Your task to perform on an android device: Clear the shopping cart on amazon. Add "macbook pro 13 inch" to the cart on amazon Image 0: 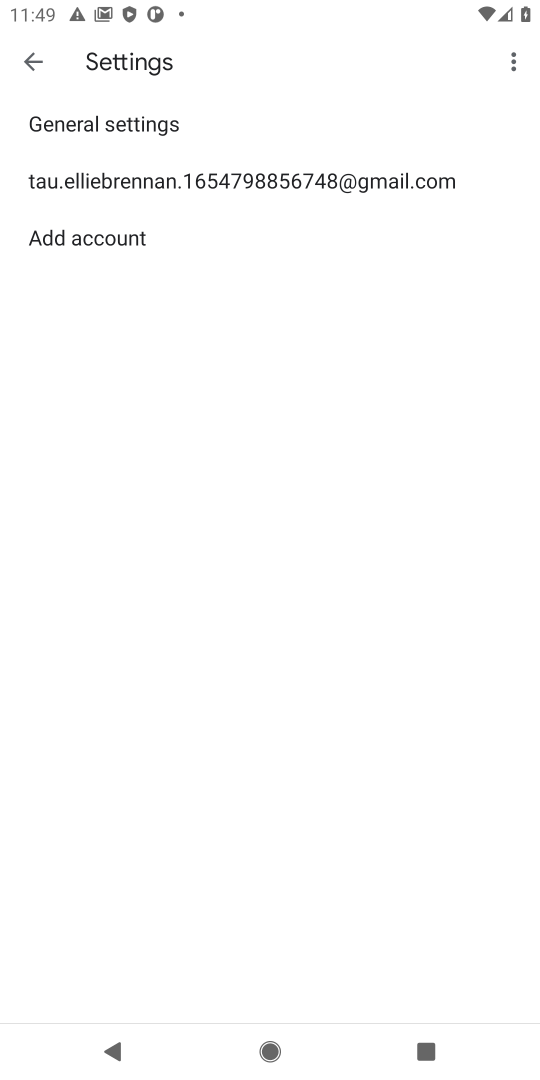
Step 0: press home button
Your task to perform on an android device: Clear the shopping cart on amazon. Add "macbook pro 13 inch" to the cart on amazon Image 1: 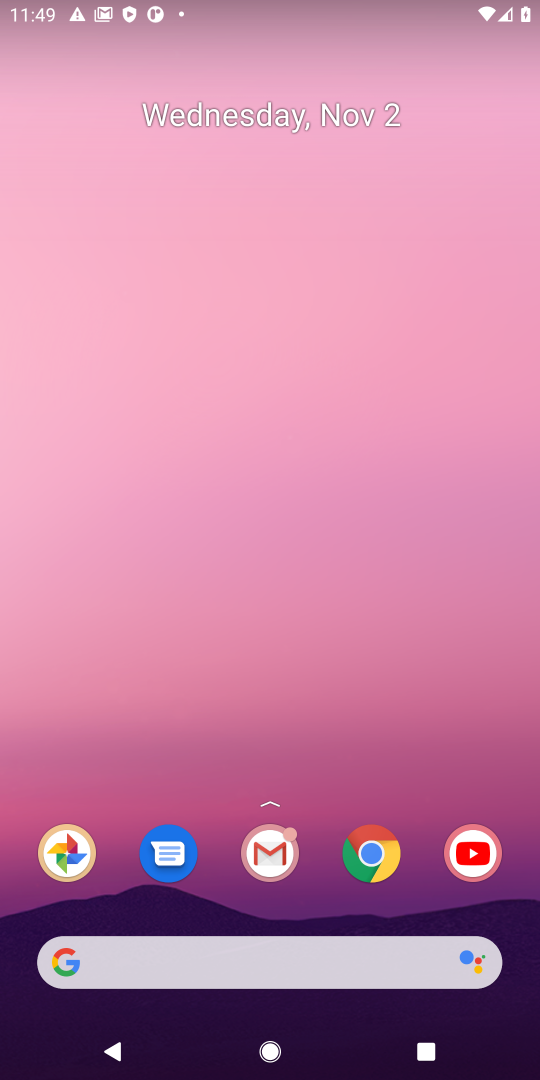
Step 1: click (373, 856)
Your task to perform on an android device: Clear the shopping cart on amazon. Add "macbook pro 13 inch" to the cart on amazon Image 2: 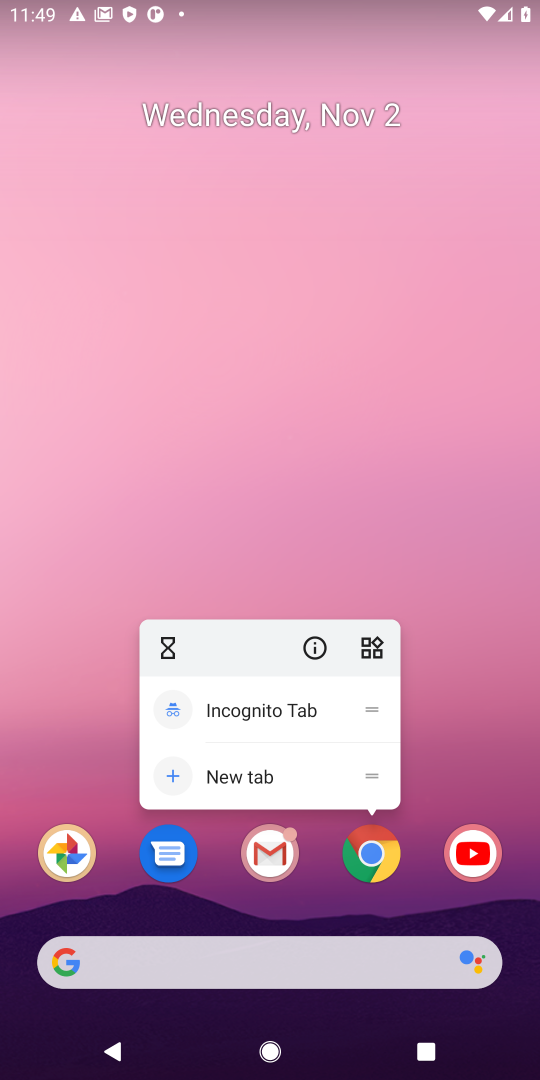
Step 2: click (369, 862)
Your task to perform on an android device: Clear the shopping cart on amazon. Add "macbook pro 13 inch" to the cart on amazon Image 3: 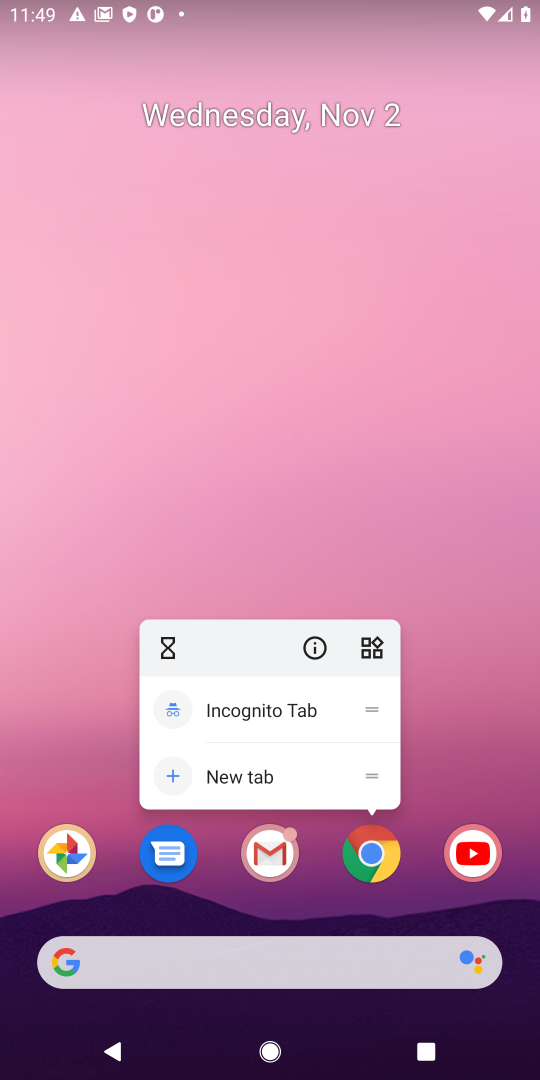
Step 3: click (372, 860)
Your task to perform on an android device: Clear the shopping cart on amazon. Add "macbook pro 13 inch" to the cart on amazon Image 4: 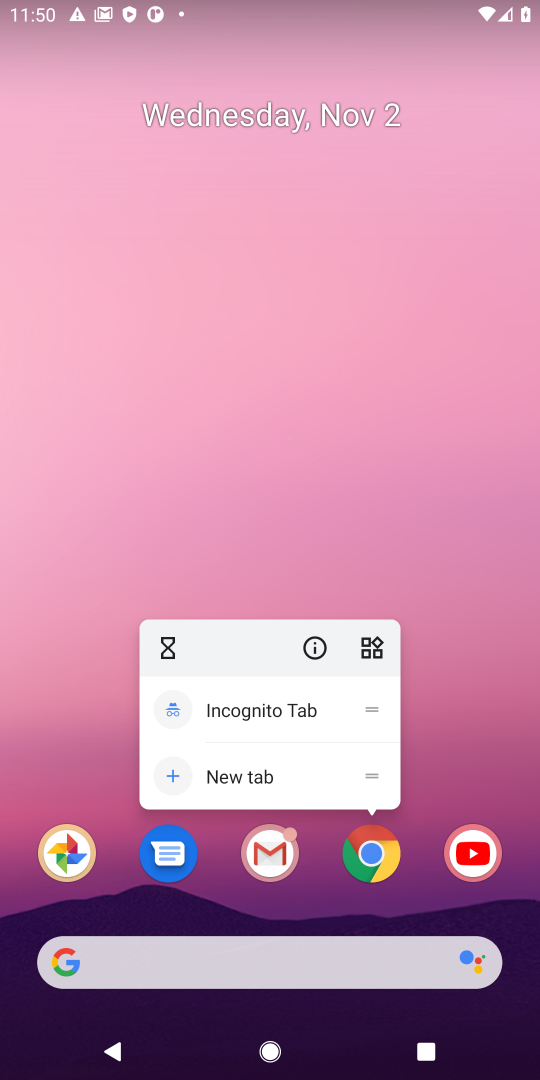
Step 4: click (367, 857)
Your task to perform on an android device: Clear the shopping cart on amazon. Add "macbook pro 13 inch" to the cart on amazon Image 5: 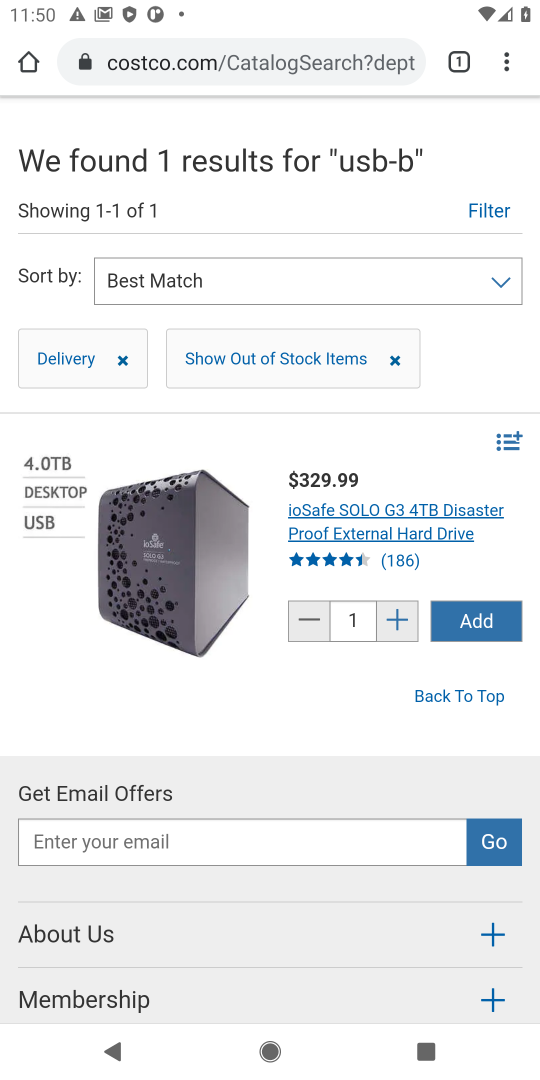
Step 5: click (297, 61)
Your task to perform on an android device: Clear the shopping cart on amazon. Add "macbook pro 13 inch" to the cart on amazon Image 6: 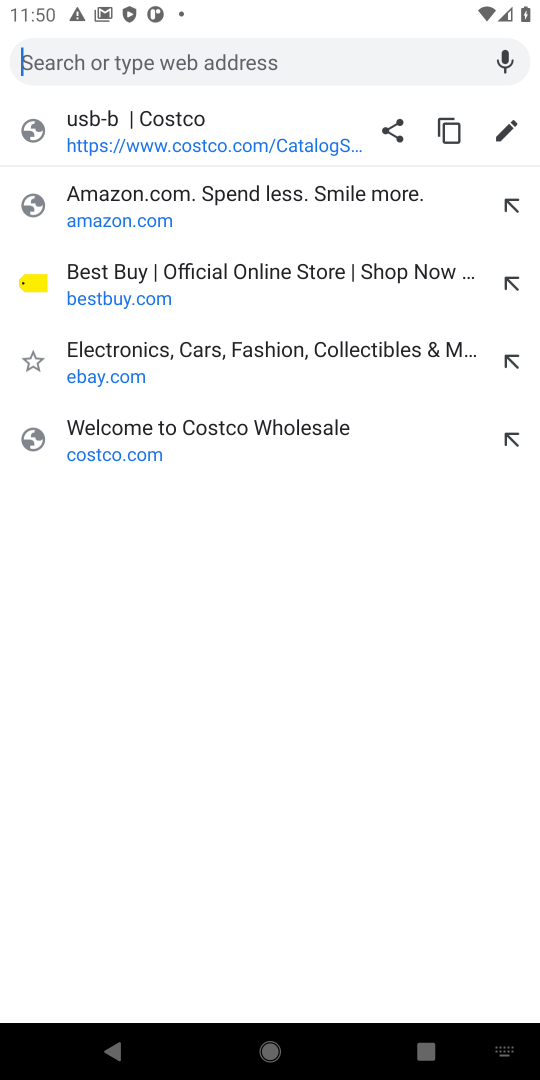
Step 6: click (85, 219)
Your task to perform on an android device: Clear the shopping cart on amazon. Add "macbook pro 13 inch" to the cart on amazon Image 7: 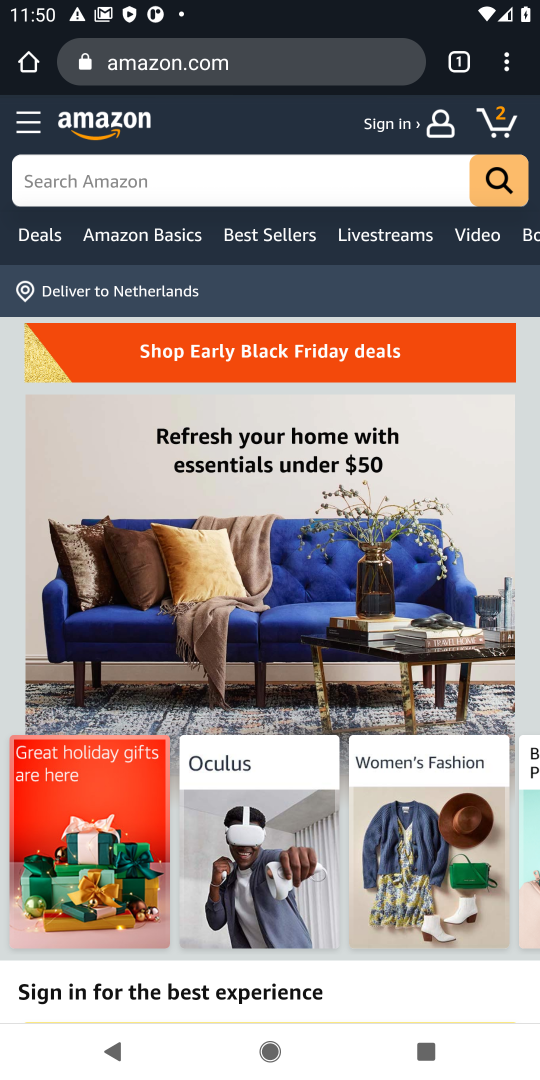
Step 7: click (316, 175)
Your task to perform on an android device: Clear the shopping cart on amazon. Add "macbook pro 13 inch" to the cart on amazon Image 8: 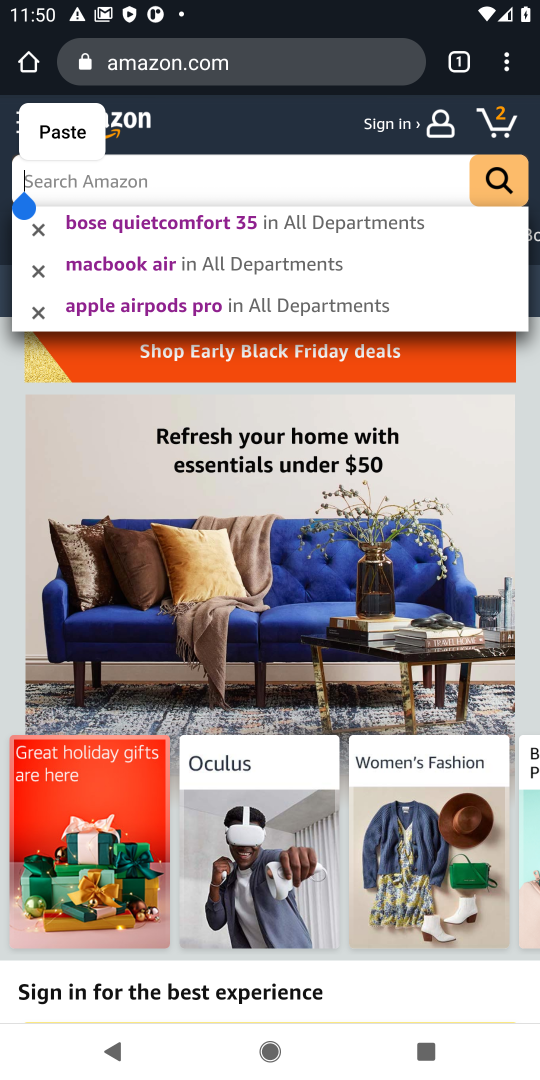
Step 8: type "macbook pro 13 inch"
Your task to perform on an android device: Clear the shopping cart on amazon. Add "macbook pro 13 inch" to the cart on amazon Image 9: 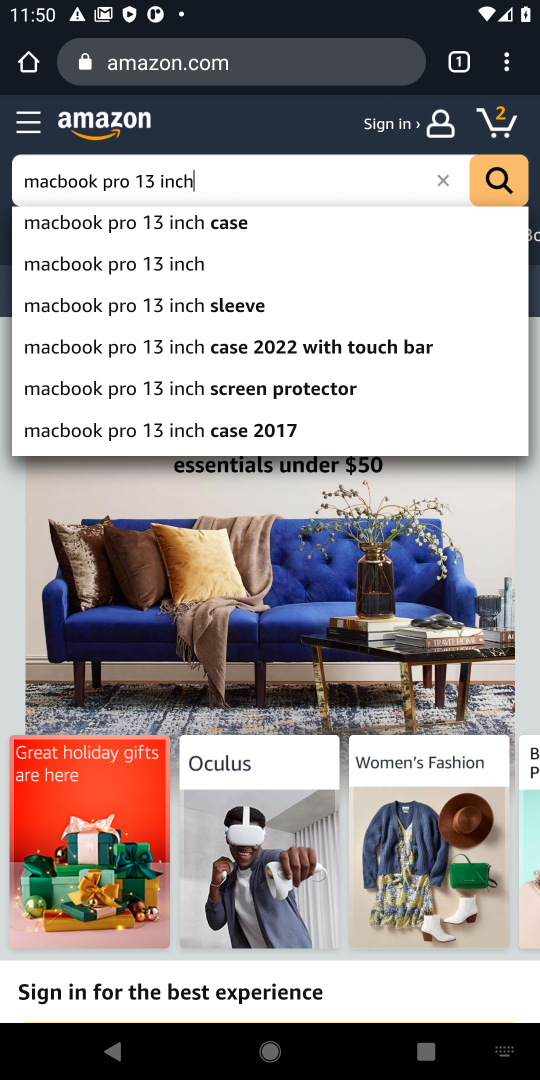
Step 9: press enter
Your task to perform on an android device: Clear the shopping cart on amazon. Add "macbook pro 13 inch" to the cart on amazon Image 10: 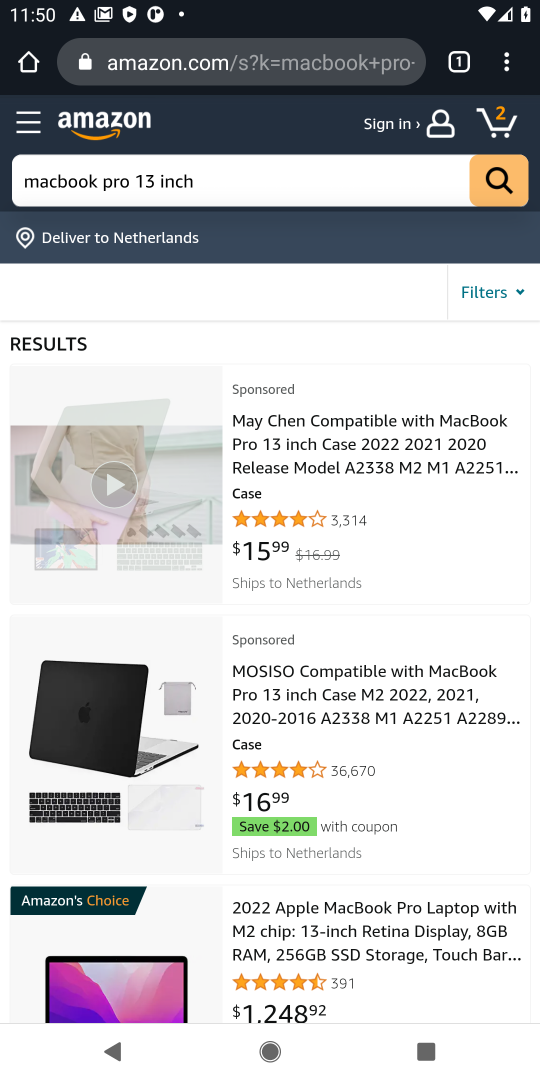
Step 10: click (346, 453)
Your task to perform on an android device: Clear the shopping cart on amazon. Add "macbook pro 13 inch" to the cart on amazon Image 11: 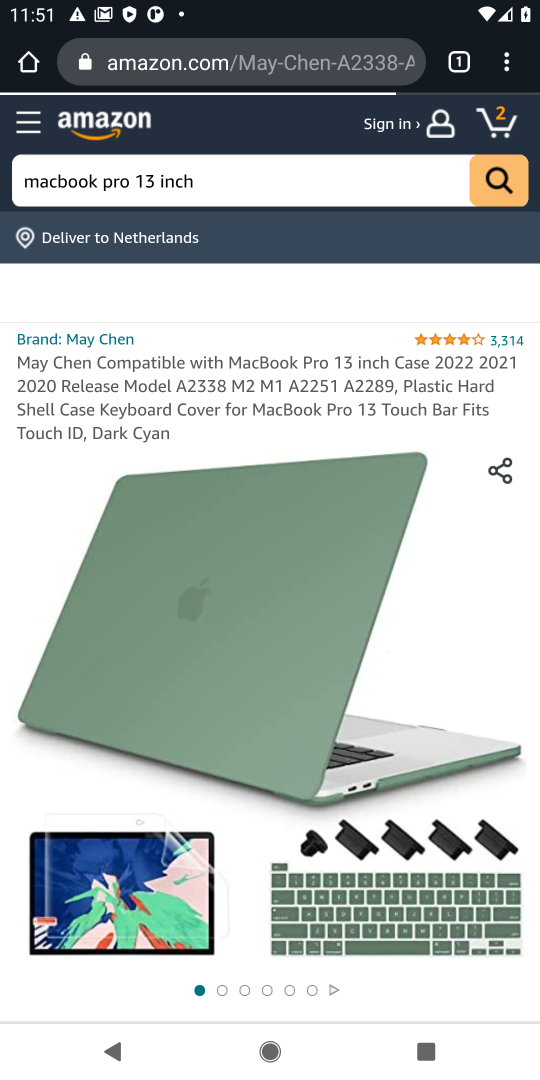
Step 11: drag from (226, 801) to (500, 199)
Your task to perform on an android device: Clear the shopping cart on amazon. Add "macbook pro 13 inch" to the cart on amazon Image 12: 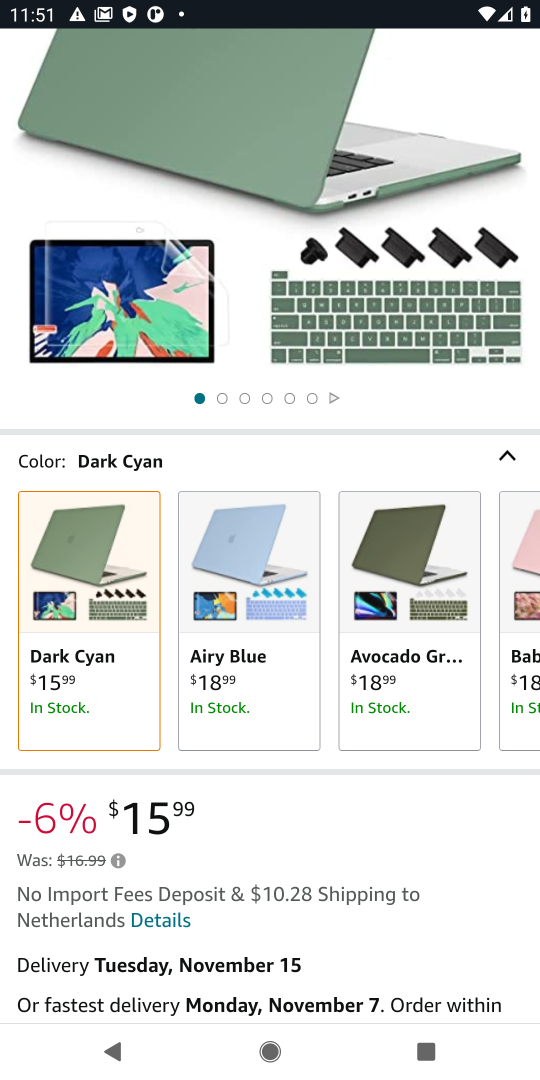
Step 12: drag from (252, 938) to (539, 278)
Your task to perform on an android device: Clear the shopping cart on amazon. Add "macbook pro 13 inch" to the cart on amazon Image 13: 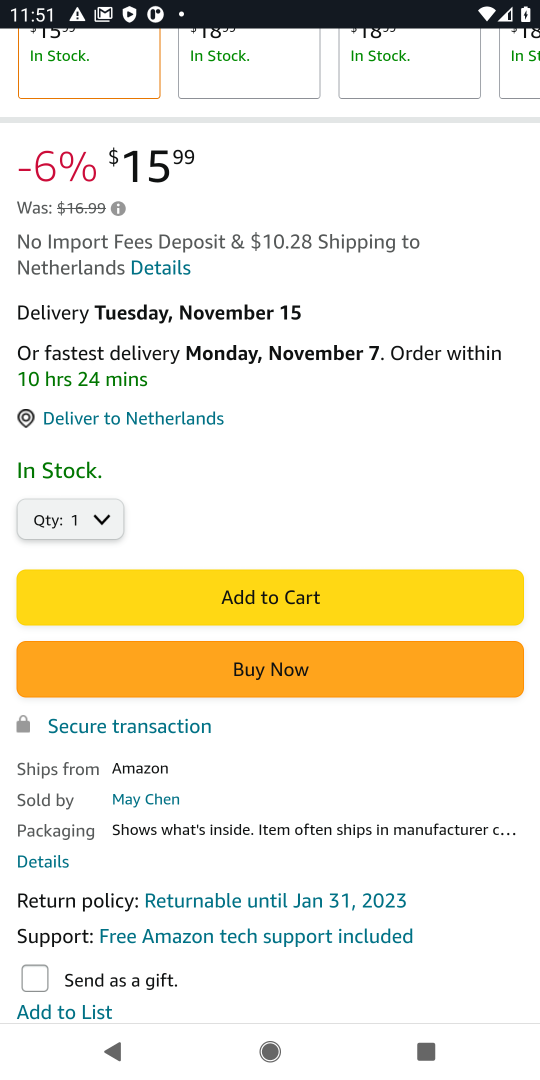
Step 13: click (281, 591)
Your task to perform on an android device: Clear the shopping cart on amazon. Add "macbook pro 13 inch" to the cart on amazon Image 14: 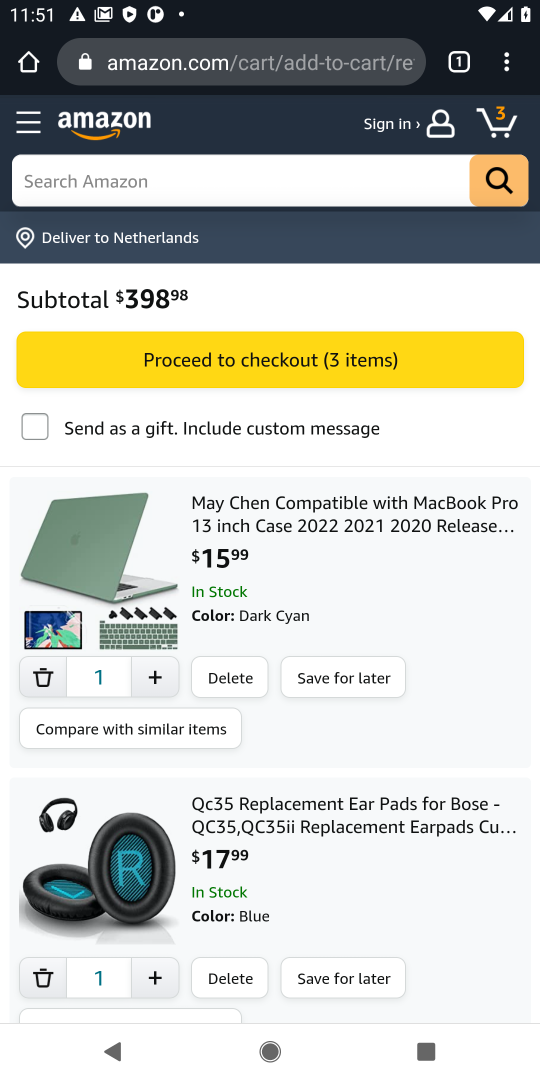
Step 14: drag from (274, 759) to (375, 466)
Your task to perform on an android device: Clear the shopping cart on amazon. Add "macbook pro 13 inch" to the cart on amazon Image 15: 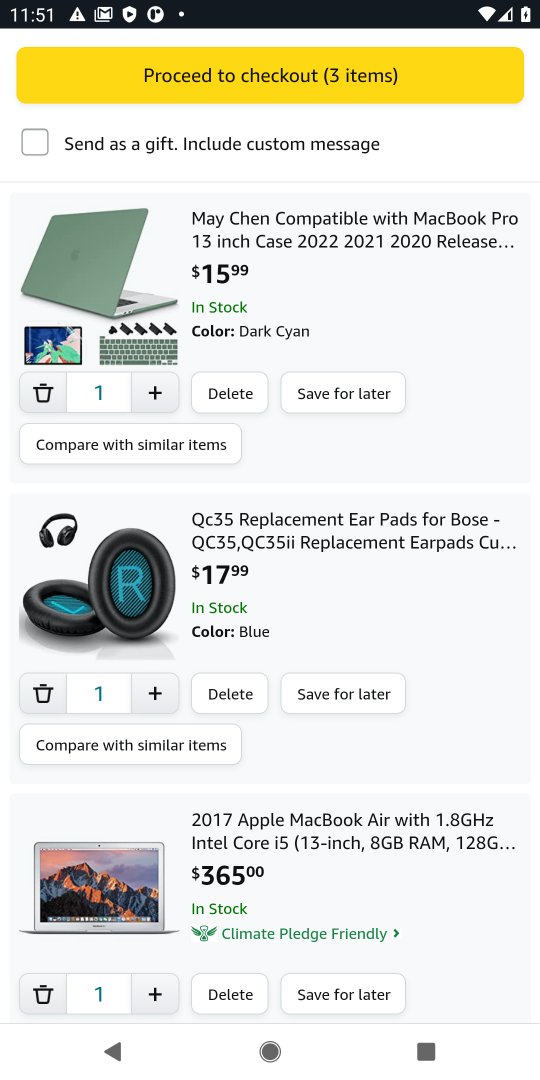
Step 15: click (233, 686)
Your task to perform on an android device: Clear the shopping cart on amazon. Add "macbook pro 13 inch" to the cart on amazon Image 16: 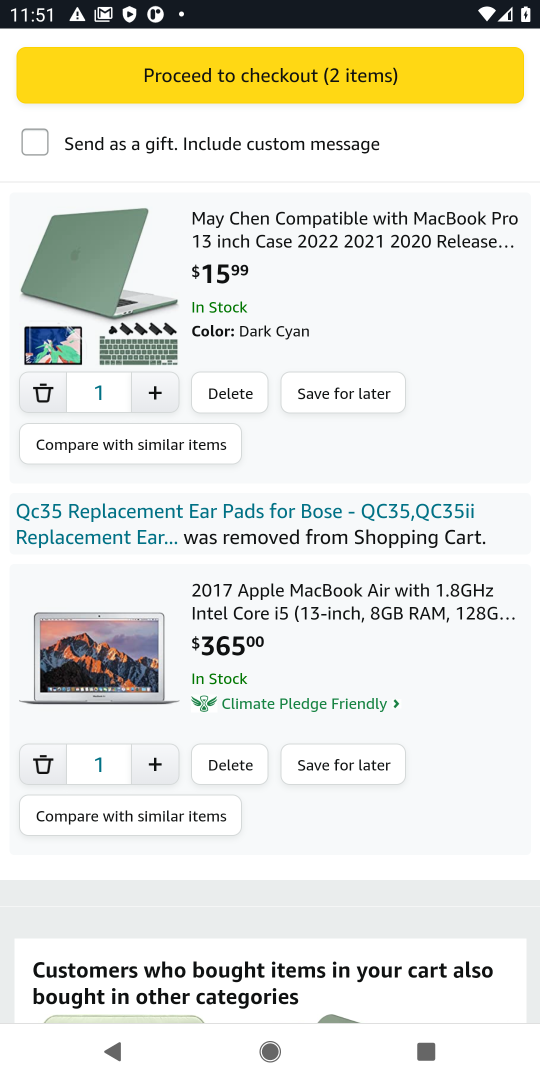
Step 16: click (226, 769)
Your task to perform on an android device: Clear the shopping cart on amazon. Add "macbook pro 13 inch" to the cart on amazon Image 17: 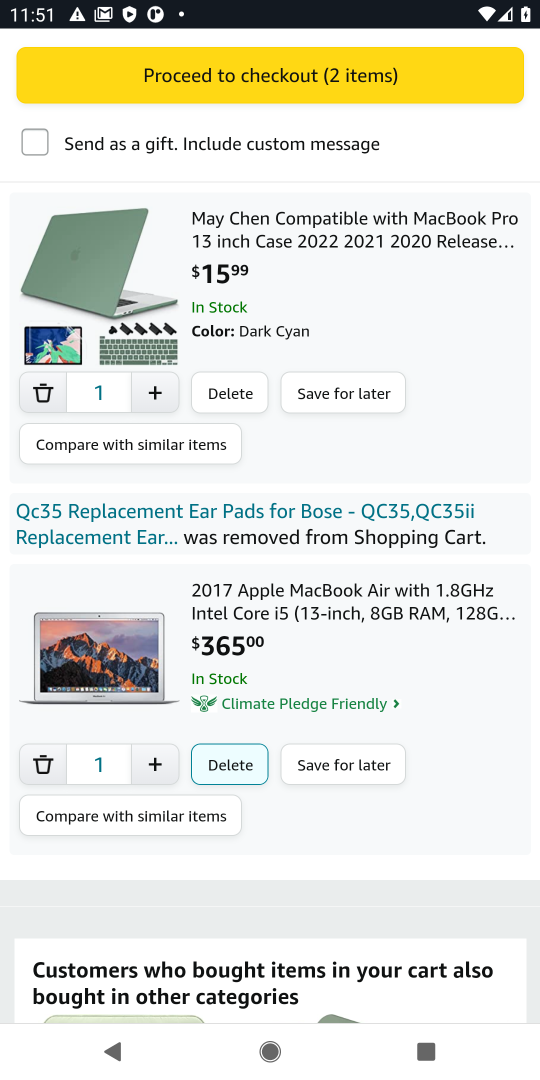
Step 17: click (238, 761)
Your task to perform on an android device: Clear the shopping cart on amazon. Add "macbook pro 13 inch" to the cart on amazon Image 18: 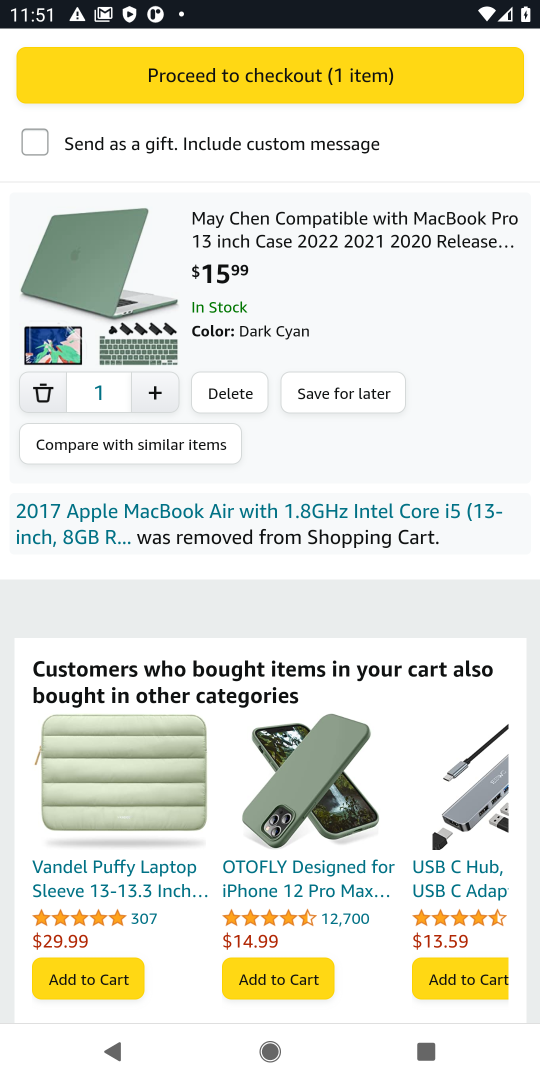
Step 18: task complete